Your task to perform on an android device: Open the web browser Image 0: 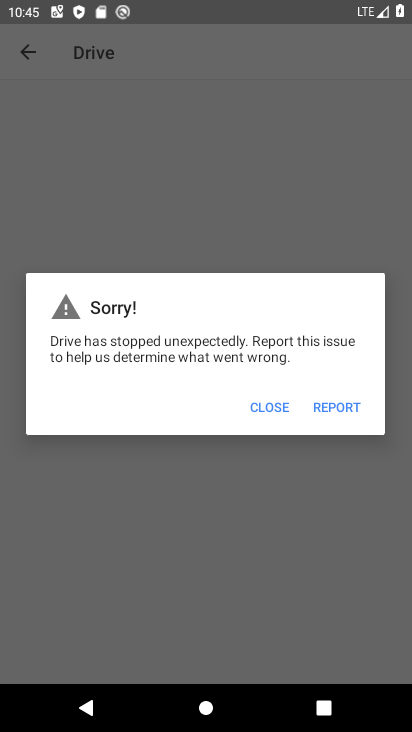
Step 0: click (257, 401)
Your task to perform on an android device: Open the web browser Image 1: 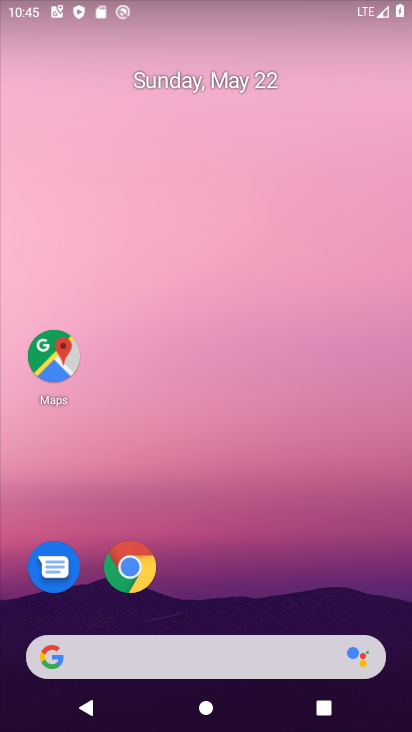
Step 1: drag from (228, 502) to (225, 0)
Your task to perform on an android device: Open the web browser Image 2: 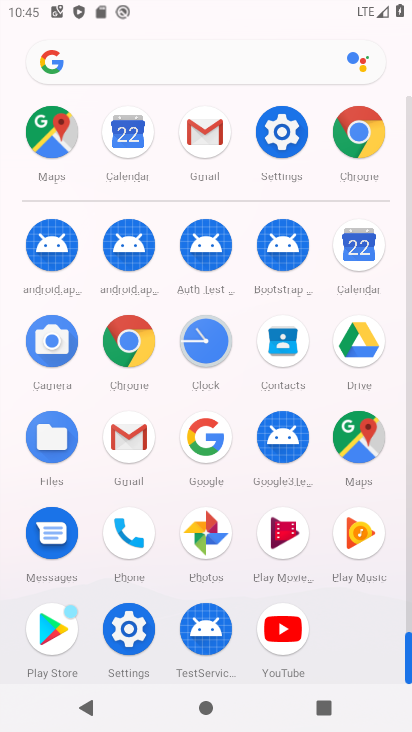
Step 2: click (126, 338)
Your task to perform on an android device: Open the web browser Image 3: 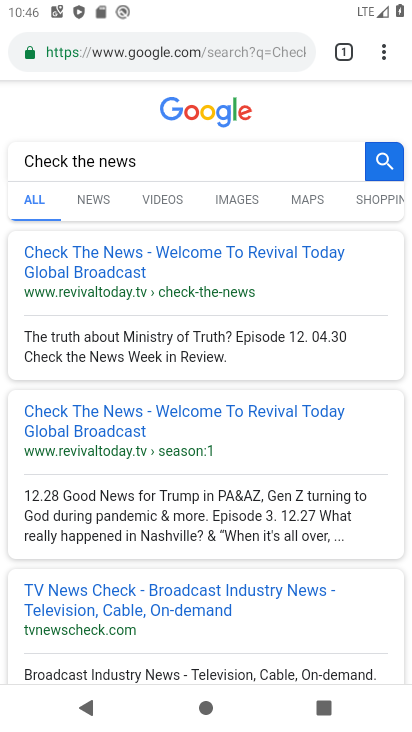
Step 3: task complete